Your task to perform on an android device: change the clock style Image 0: 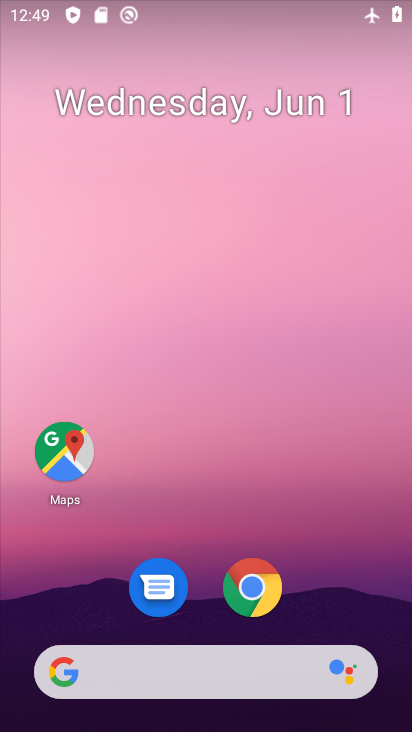
Step 0: drag from (255, 455) to (226, 60)
Your task to perform on an android device: change the clock style Image 1: 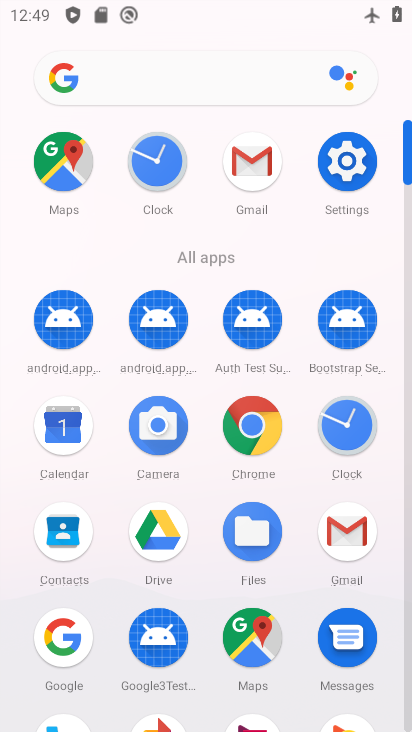
Step 1: click (153, 158)
Your task to perform on an android device: change the clock style Image 2: 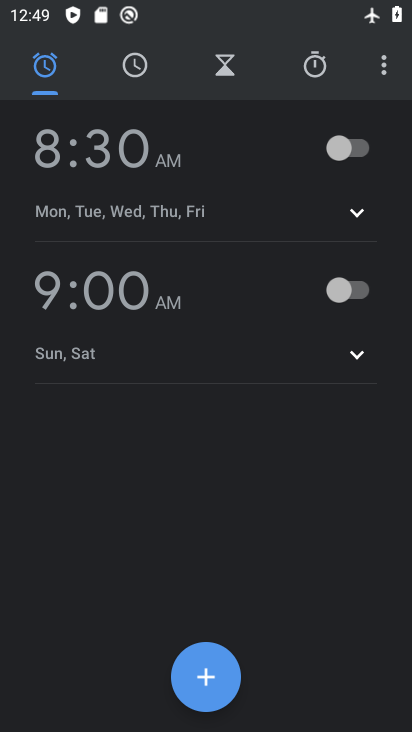
Step 2: click (383, 59)
Your task to perform on an android device: change the clock style Image 3: 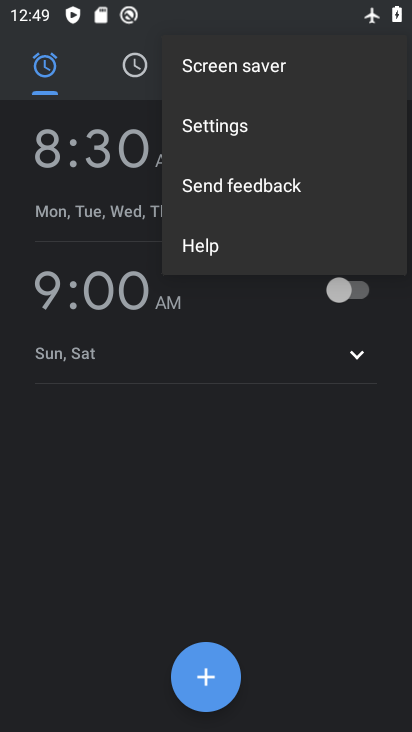
Step 3: click (217, 123)
Your task to perform on an android device: change the clock style Image 4: 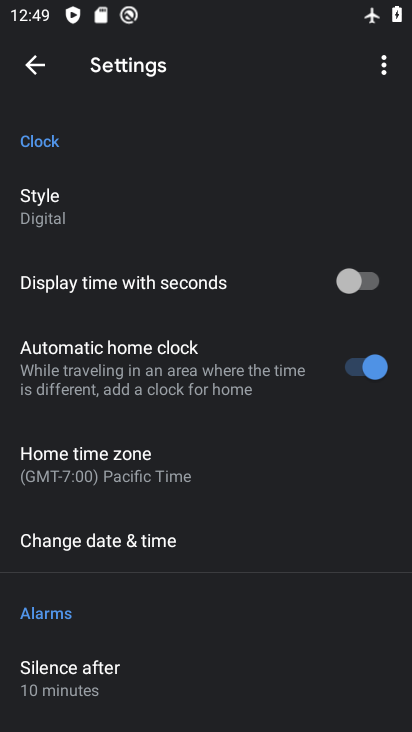
Step 4: click (44, 205)
Your task to perform on an android device: change the clock style Image 5: 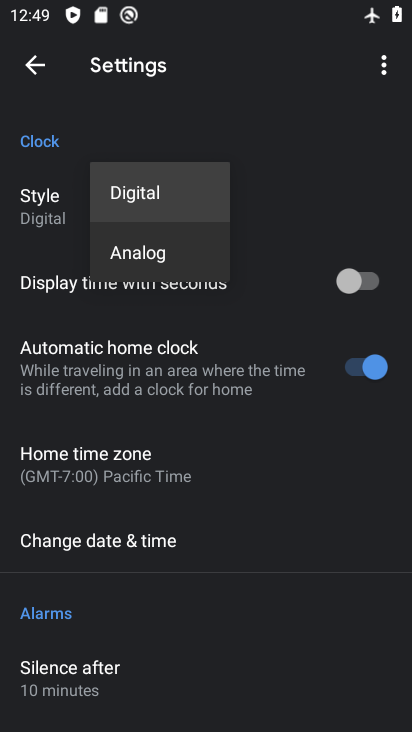
Step 5: click (128, 255)
Your task to perform on an android device: change the clock style Image 6: 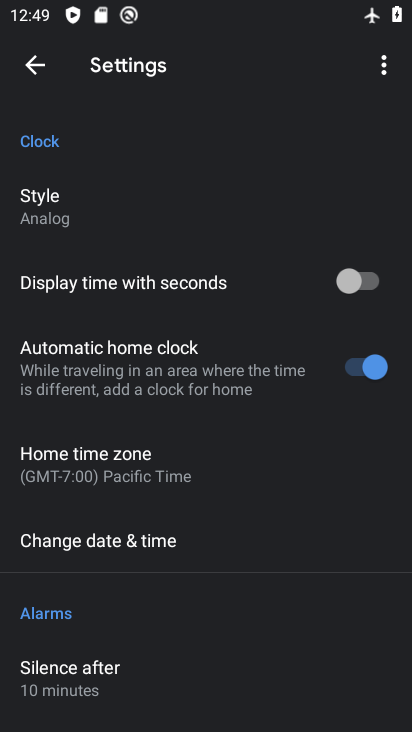
Step 6: task complete